Your task to perform on an android device: empty trash in the gmail app Image 0: 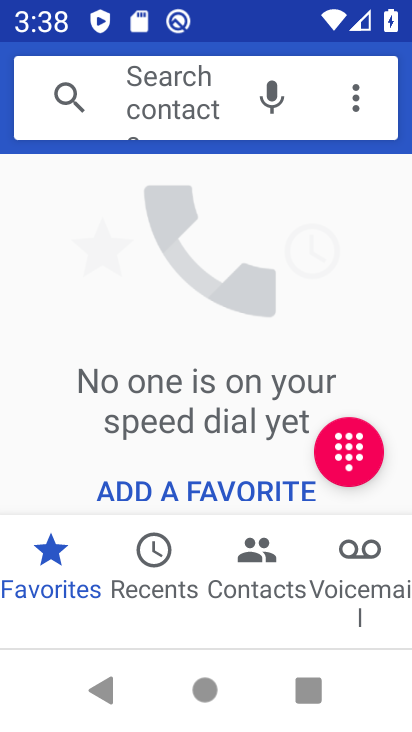
Step 0: press home button
Your task to perform on an android device: empty trash in the gmail app Image 1: 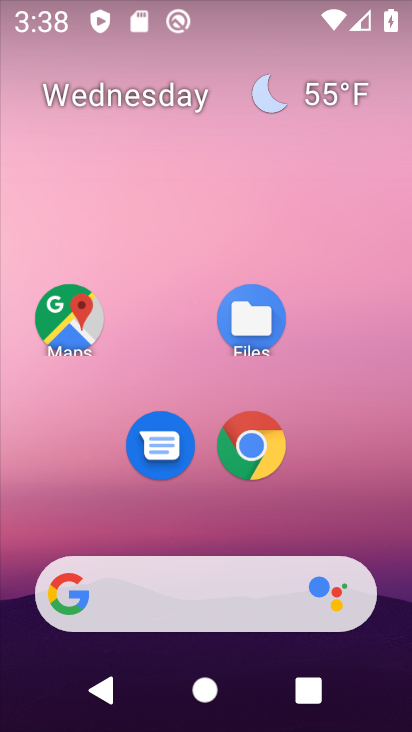
Step 1: drag from (370, 524) to (321, 79)
Your task to perform on an android device: empty trash in the gmail app Image 2: 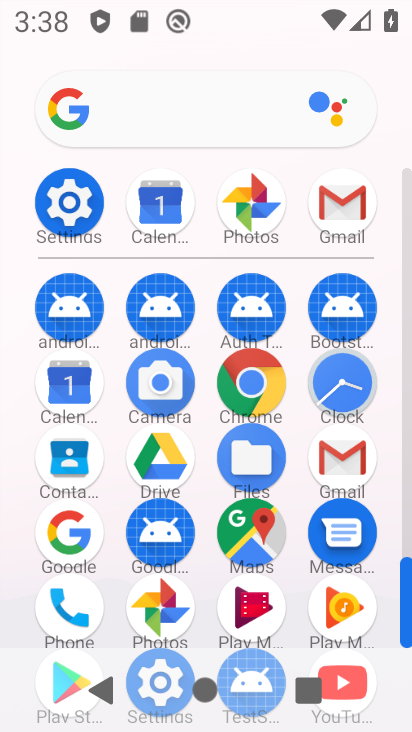
Step 2: click (322, 204)
Your task to perform on an android device: empty trash in the gmail app Image 3: 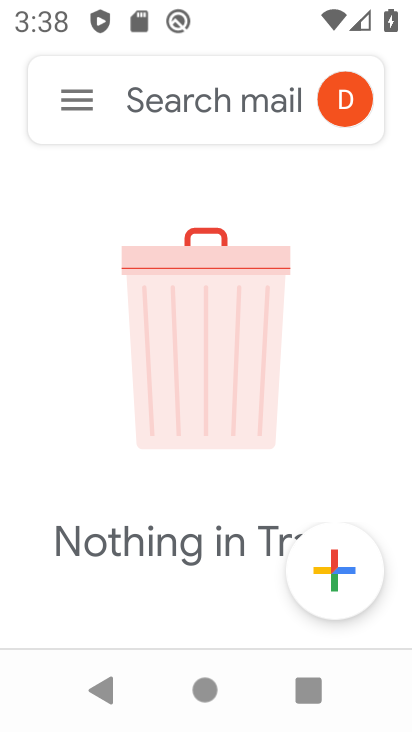
Step 3: click (81, 101)
Your task to perform on an android device: empty trash in the gmail app Image 4: 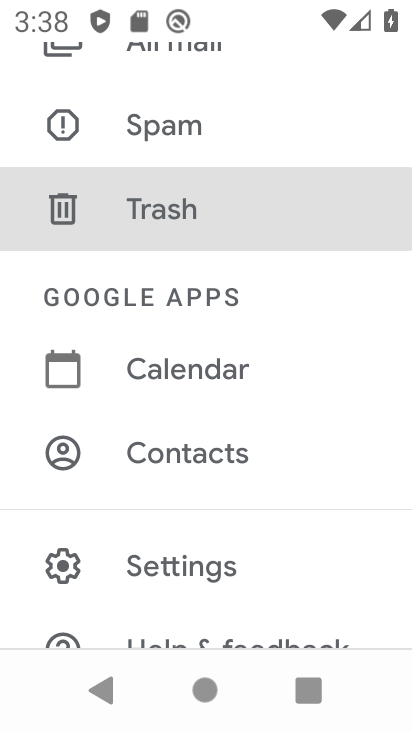
Step 4: drag from (225, 556) to (191, 384)
Your task to perform on an android device: empty trash in the gmail app Image 5: 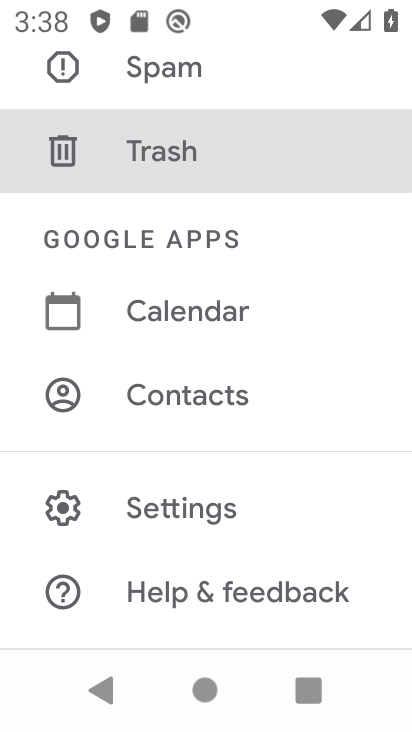
Step 5: click (223, 146)
Your task to perform on an android device: empty trash in the gmail app Image 6: 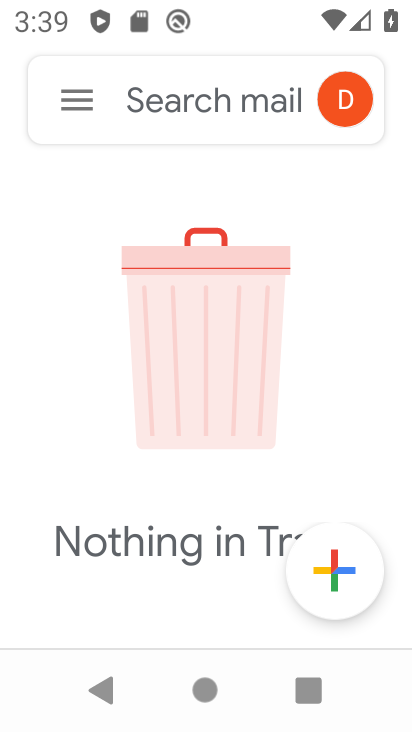
Step 6: task complete